Your task to perform on an android device: Open the calendar and show me this week's events Image 0: 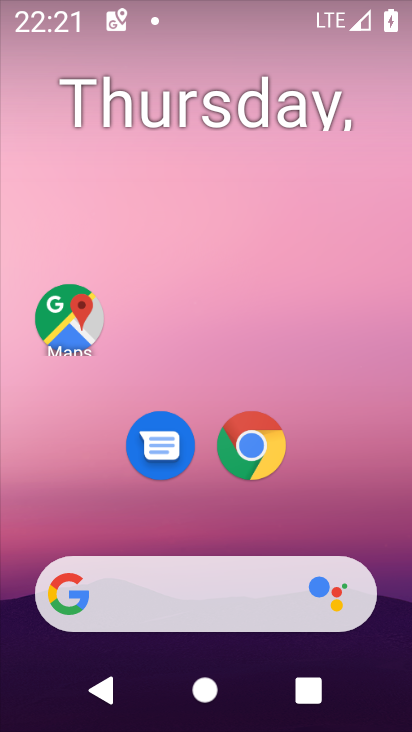
Step 0: drag from (237, 532) to (243, 150)
Your task to perform on an android device: Open the calendar and show me this week's events Image 1: 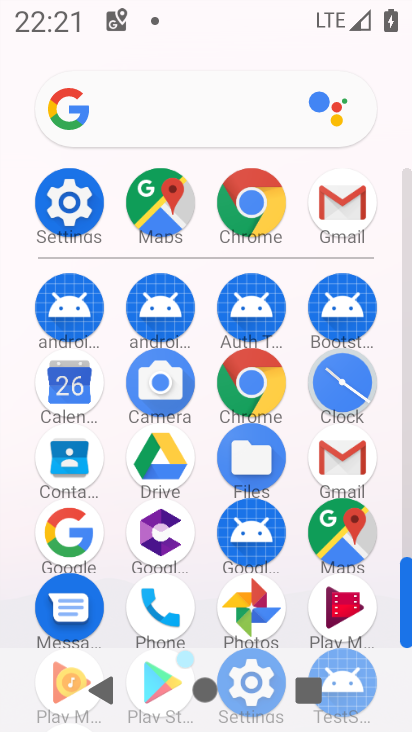
Step 1: drag from (213, 273) to (251, 84)
Your task to perform on an android device: Open the calendar and show me this week's events Image 2: 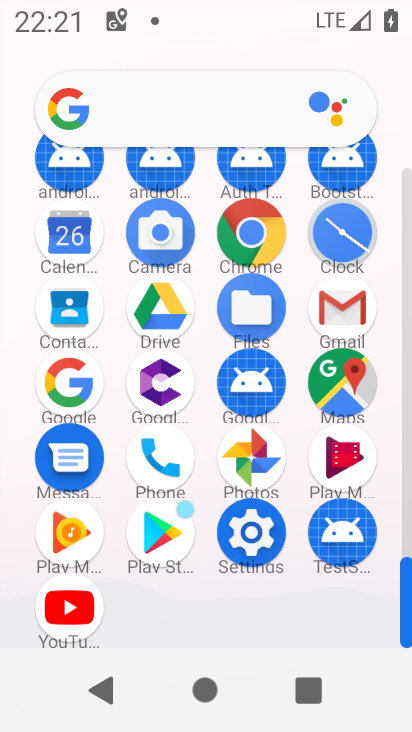
Step 2: click (78, 247)
Your task to perform on an android device: Open the calendar and show me this week's events Image 3: 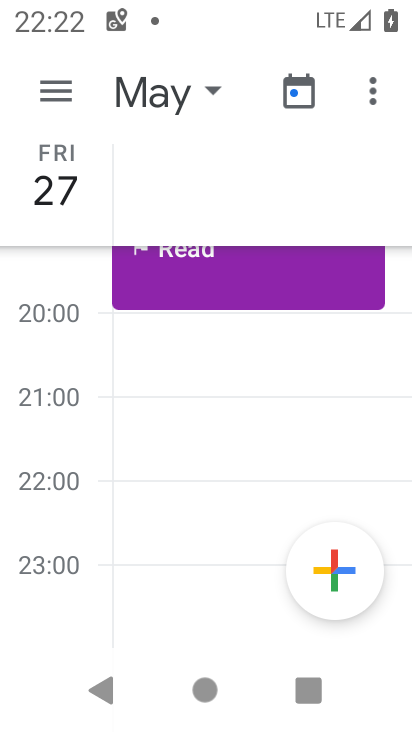
Step 3: click (67, 98)
Your task to perform on an android device: Open the calendar and show me this week's events Image 4: 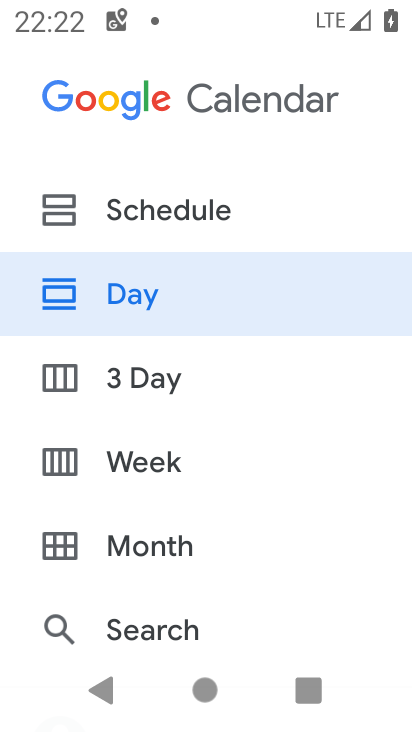
Step 4: click (165, 462)
Your task to perform on an android device: Open the calendar and show me this week's events Image 5: 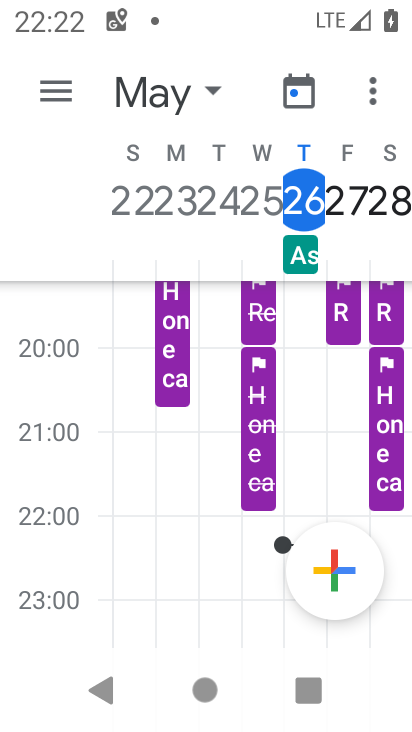
Step 5: task complete